Your task to perform on an android device: Open Yahoo.com Image 0: 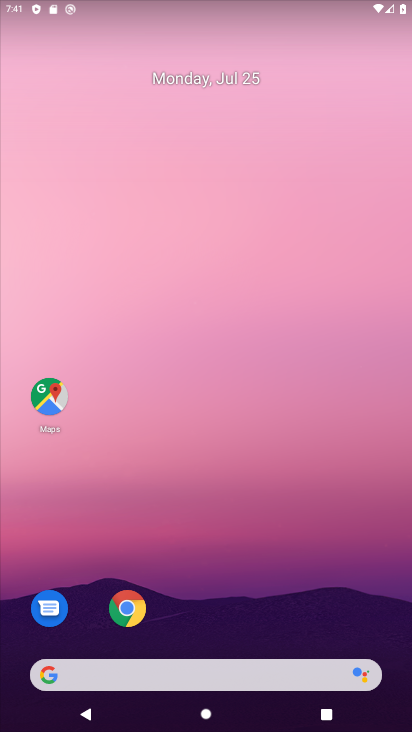
Step 0: drag from (173, 610) to (221, 71)
Your task to perform on an android device: Open Yahoo.com Image 1: 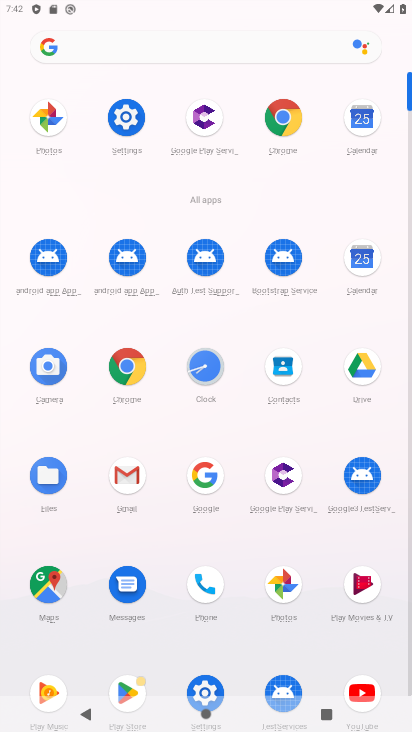
Step 1: click (173, 59)
Your task to perform on an android device: Open Yahoo.com Image 2: 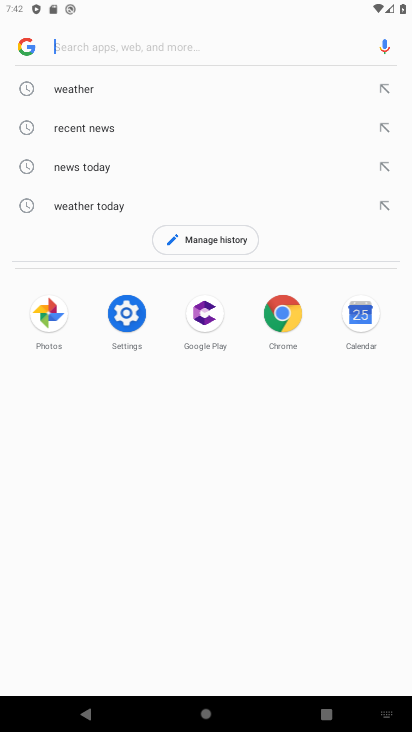
Step 2: type "Yahoo.com"
Your task to perform on an android device: Open Yahoo.com Image 3: 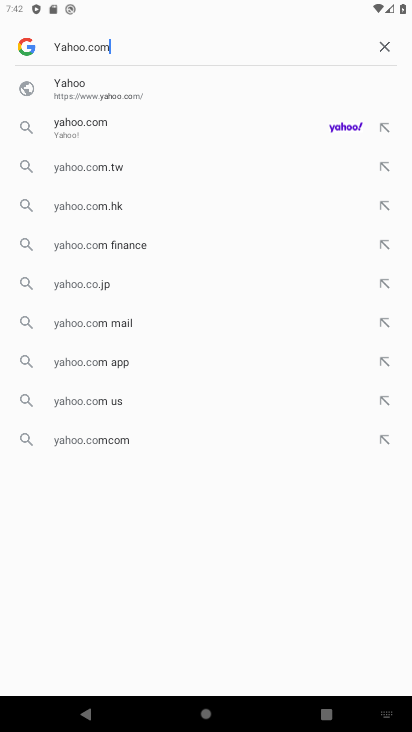
Step 3: type ""
Your task to perform on an android device: Open Yahoo.com Image 4: 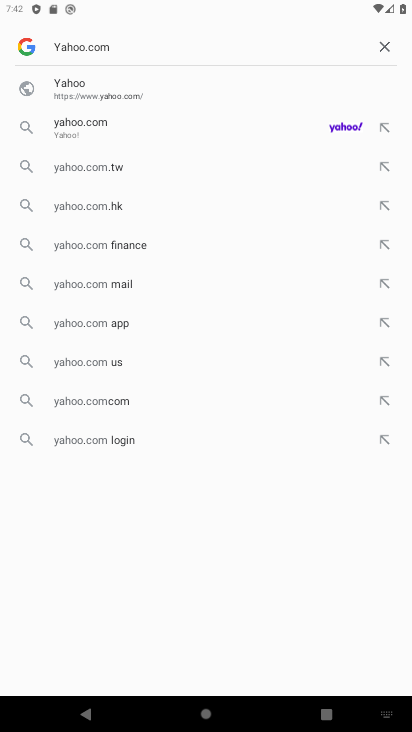
Step 4: click (94, 118)
Your task to perform on an android device: Open Yahoo.com Image 5: 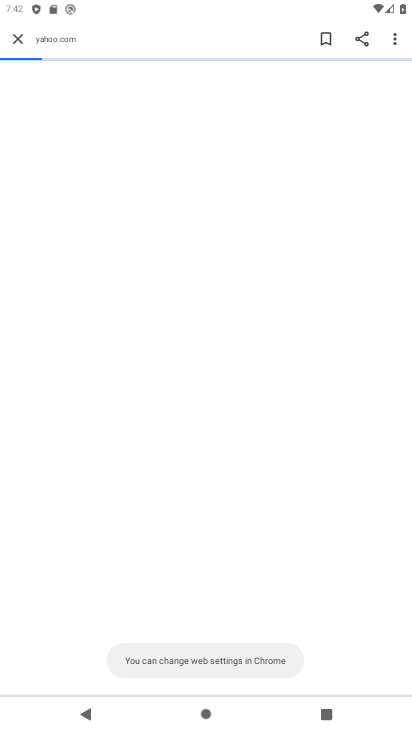
Step 5: task complete